Your task to perform on an android device: toggle wifi Image 0: 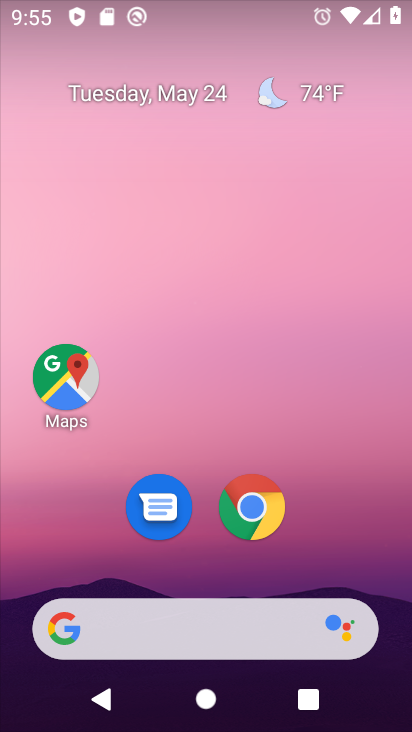
Step 0: drag from (237, 696) to (223, 165)
Your task to perform on an android device: toggle wifi Image 1: 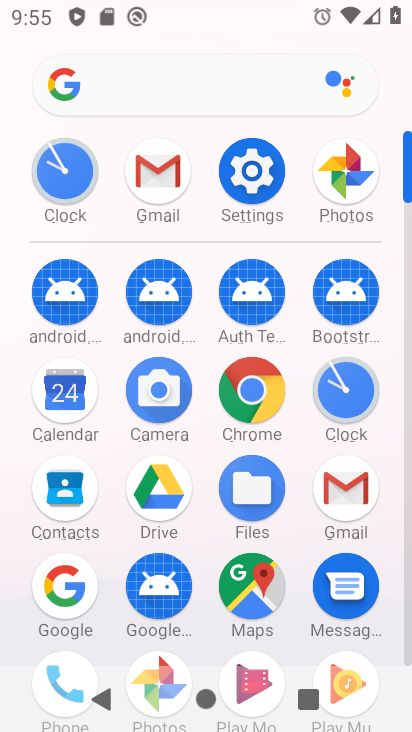
Step 1: click (240, 173)
Your task to perform on an android device: toggle wifi Image 2: 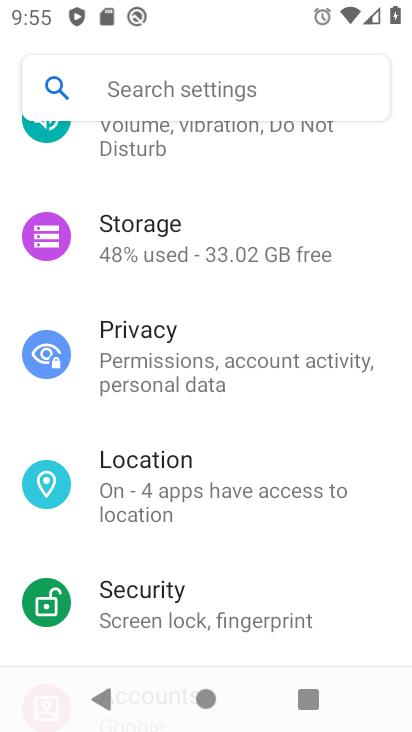
Step 2: drag from (246, 200) to (253, 611)
Your task to perform on an android device: toggle wifi Image 3: 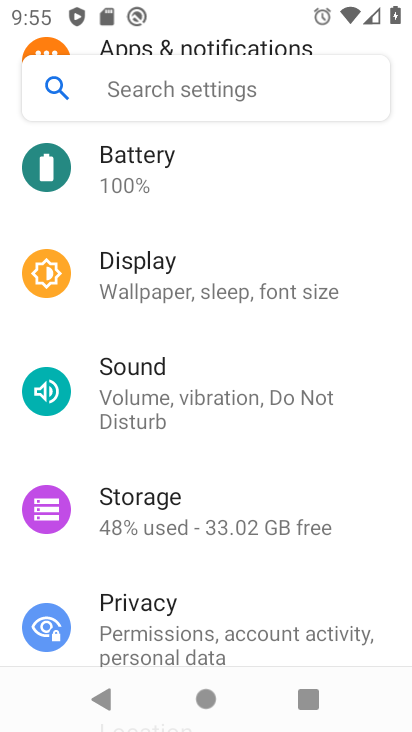
Step 3: drag from (232, 154) to (239, 584)
Your task to perform on an android device: toggle wifi Image 4: 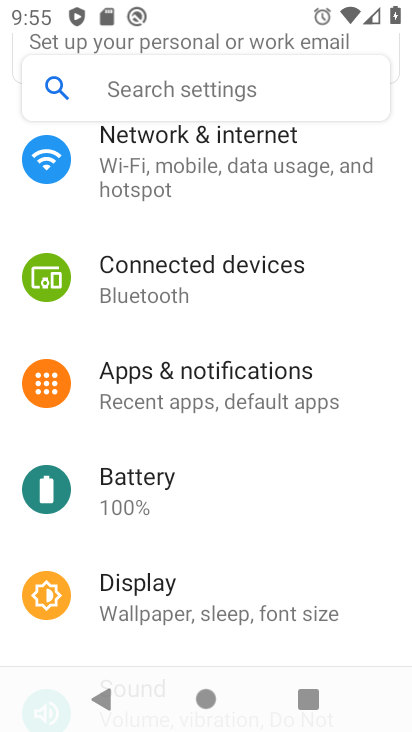
Step 4: drag from (211, 197) to (220, 544)
Your task to perform on an android device: toggle wifi Image 5: 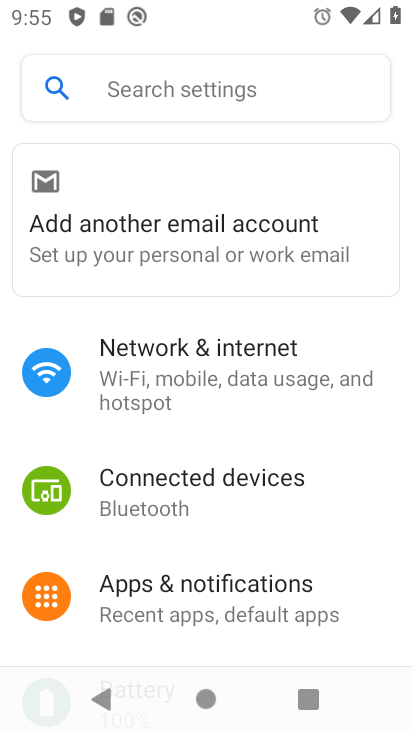
Step 5: click (169, 368)
Your task to perform on an android device: toggle wifi Image 6: 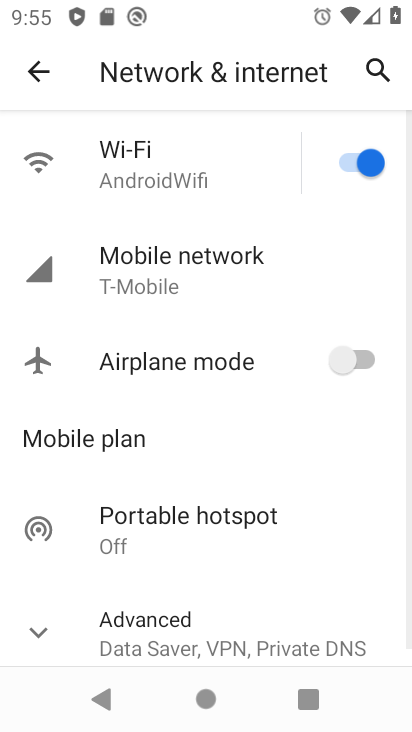
Step 6: click (172, 173)
Your task to perform on an android device: toggle wifi Image 7: 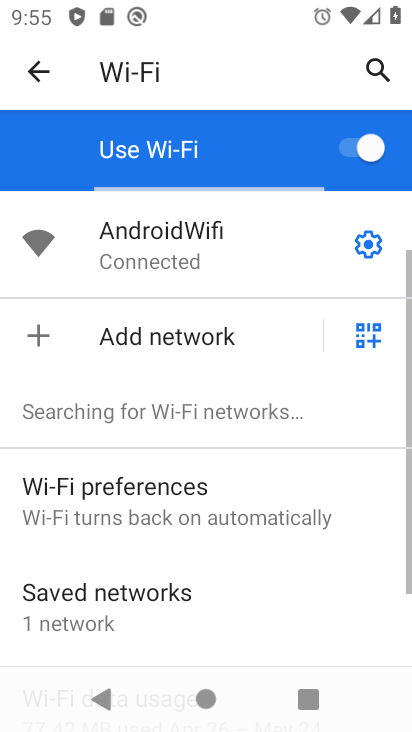
Step 7: click (353, 149)
Your task to perform on an android device: toggle wifi Image 8: 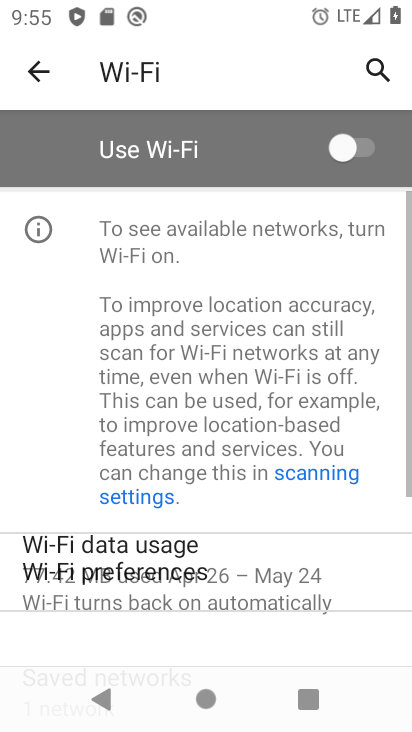
Step 8: task complete